Your task to perform on an android device: turn on showing notifications on the lock screen Image 0: 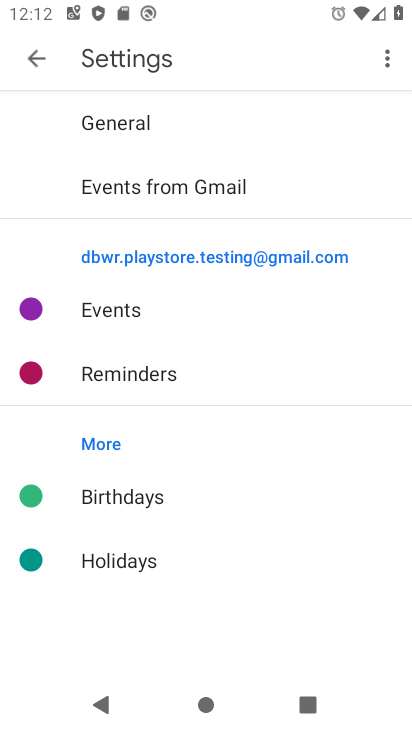
Step 0: drag from (213, 587) to (292, 177)
Your task to perform on an android device: turn on showing notifications on the lock screen Image 1: 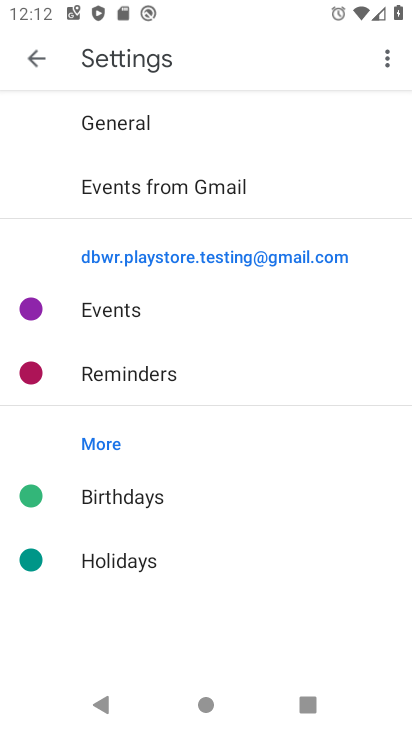
Step 1: press home button
Your task to perform on an android device: turn on showing notifications on the lock screen Image 2: 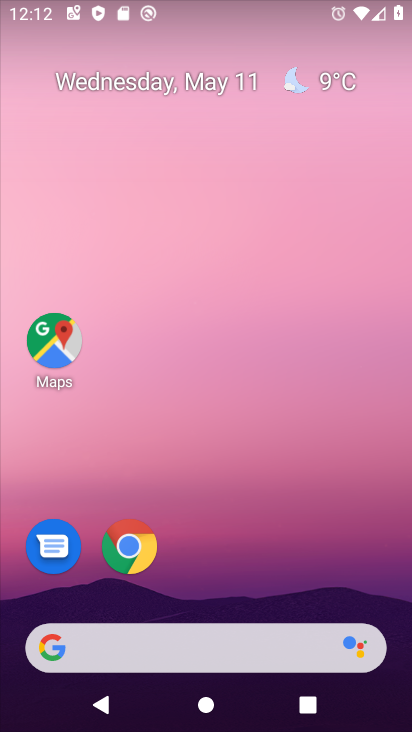
Step 2: drag from (215, 590) to (238, 224)
Your task to perform on an android device: turn on showing notifications on the lock screen Image 3: 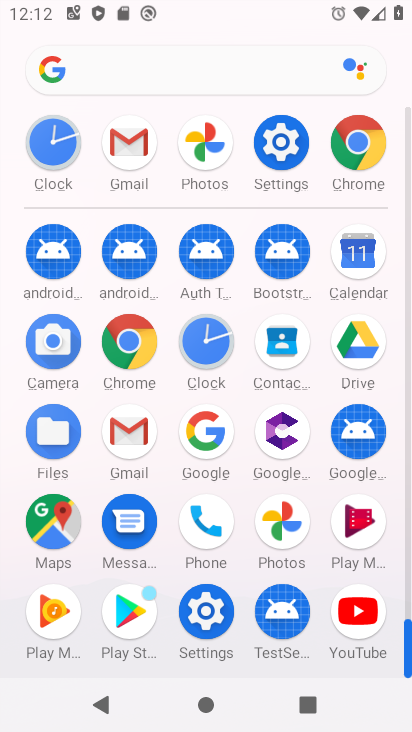
Step 3: click (277, 152)
Your task to perform on an android device: turn on showing notifications on the lock screen Image 4: 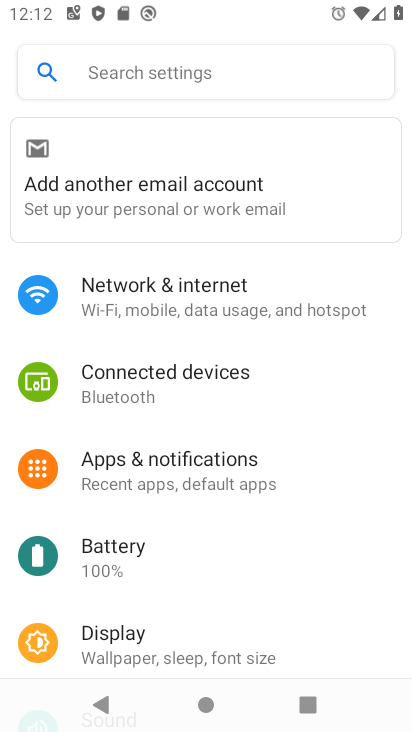
Step 4: drag from (244, 493) to (271, 302)
Your task to perform on an android device: turn on showing notifications on the lock screen Image 5: 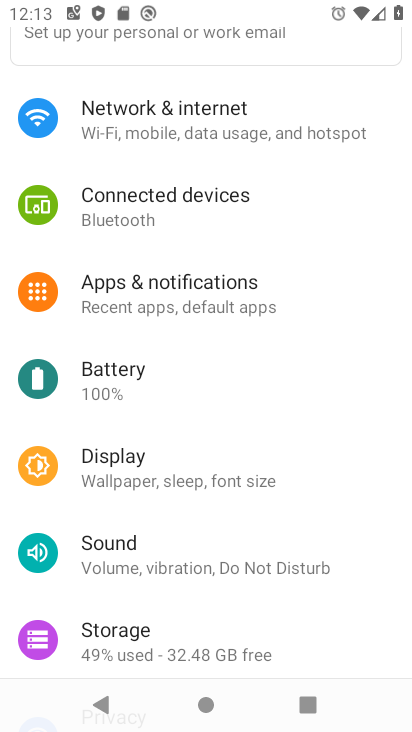
Step 5: drag from (153, 629) to (190, 328)
Your task to perform on an android device: turn on showing notifications on the lock screen Image 6: 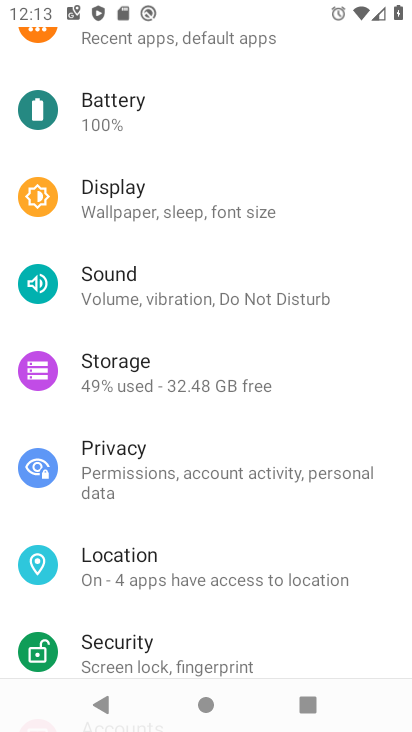
Step 6: drag from (238, 193) to (257, 649)
Your task to perform on an android device: turn on showing notifications on the lock screen Image 7: 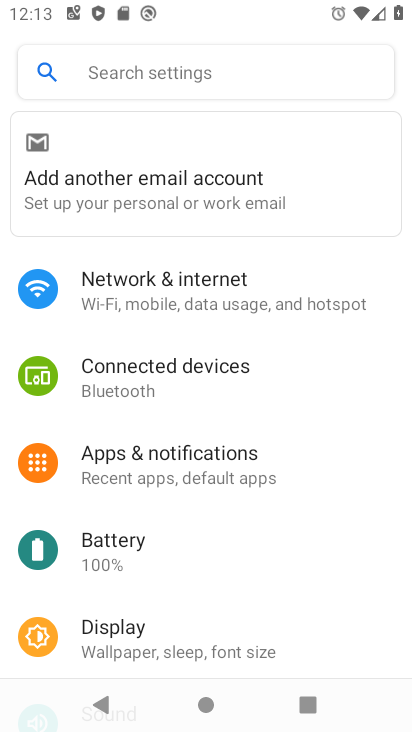
Step 7: click (147, 462)
Your task to perform on an android device: turn on showing notifications on the lock screen Image 8: 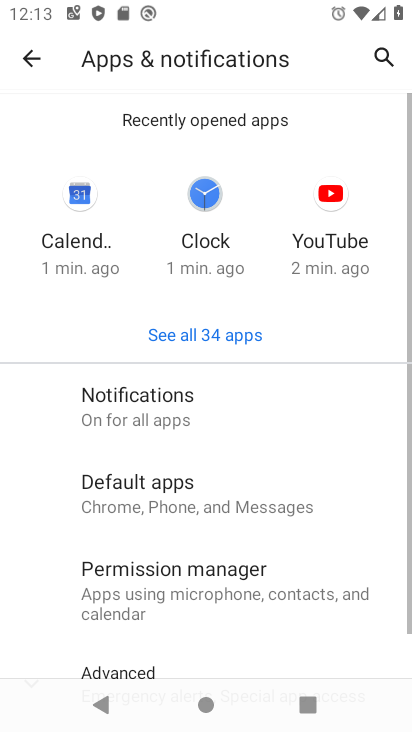
Step 8: drag from (191, 580) to (220, 281)
Your task to perform on an android device: turn on showing notifications on the lock screen Image 9: 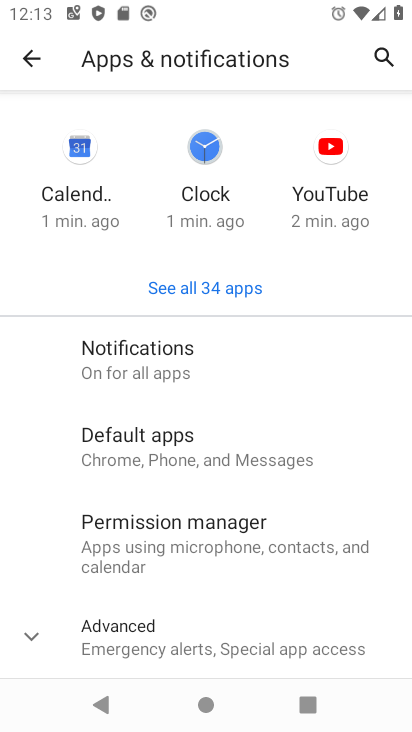
Step 9: click (220, 365)
Your task to perform on an android device: turn on showing notifications on the lock screen Image 10: 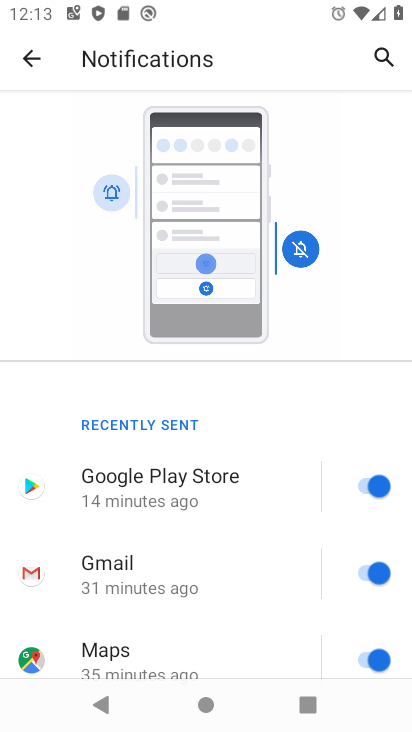
Step 10: drag from (200, 621) to (229, 250)
Your task to perform on an android device: turn on showing notifications on the lock screen Image 11: 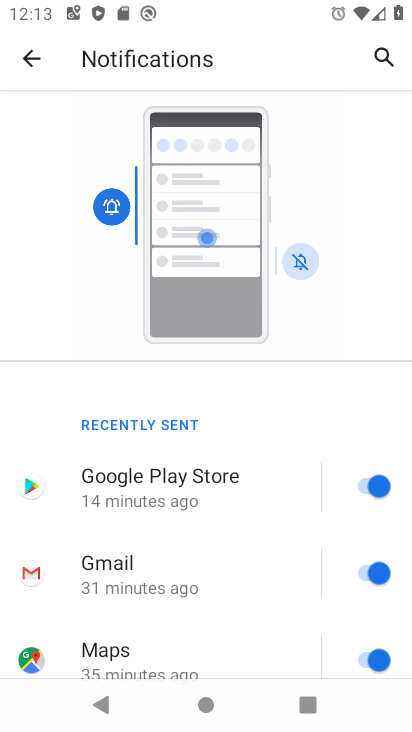
Step 11: drag from (168, 645) to (212, 246)
Your task to perform on an android device: turn on showing notifications on the lock screen Image 12: 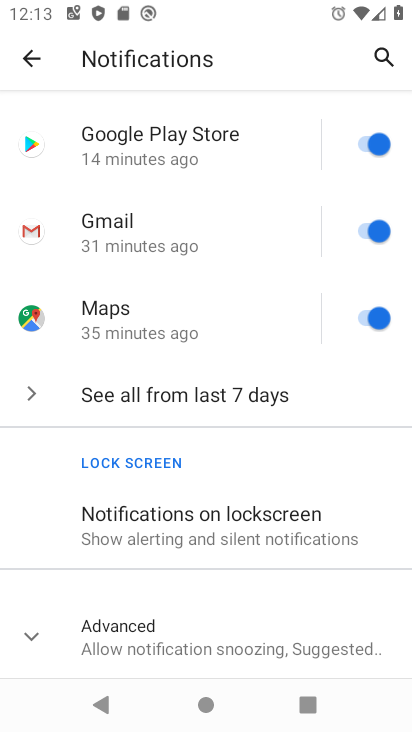
Step 12: click (212, 519)
Your task to perform on an android device: turn on showing notifications on the lock screen Image 13: 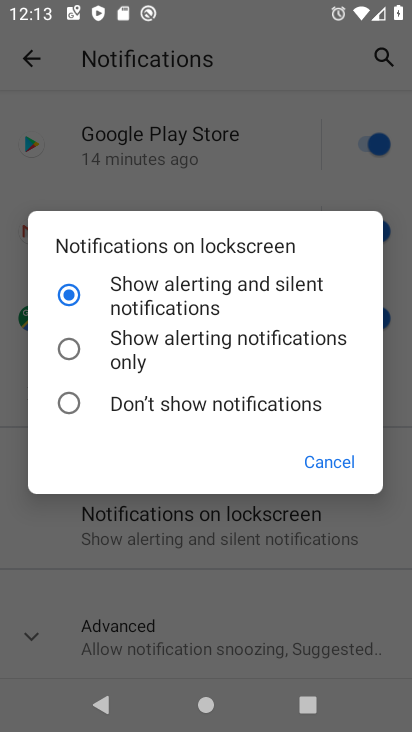
Step 13: click (98, 342)
Your task to perform on an android device: turn on showing notifications on the lock screen Image 14: 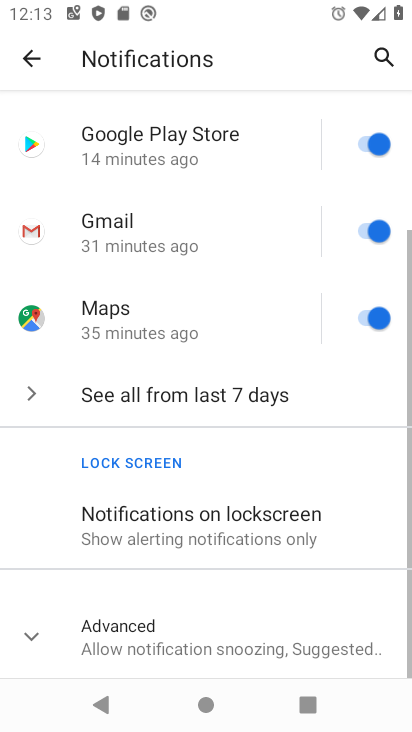
Step 14: task complete